Your task to perform on an android device: Open Maps and search for coffee Image 0: 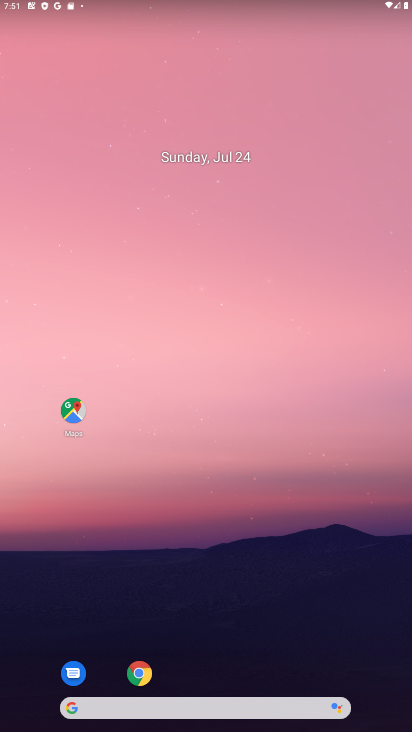
Step 0: click (73, 409)
Your task to perform on an android device: Open Maps and search for coffee Image 1: 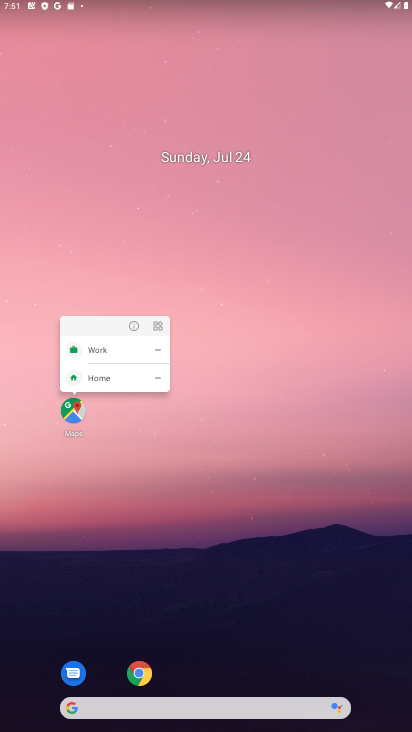
Step 1: click (65, 419)
Your task to perform on an android device: Open Maps and search for coffee Image 2: 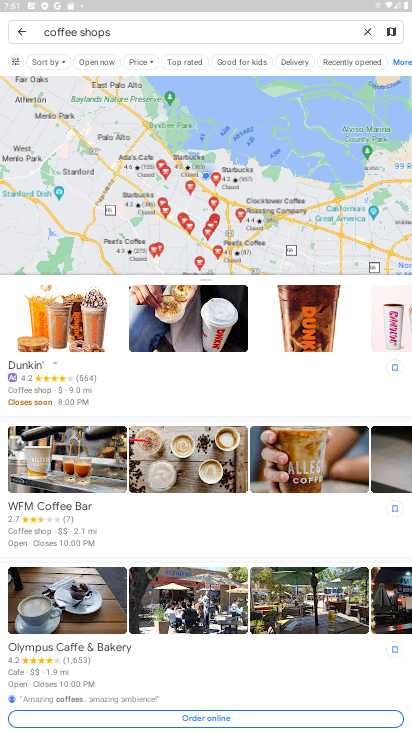
Step 2: click (15, 32)
Your task to perform on an android device: Open Maps and search for coffee Image 3: 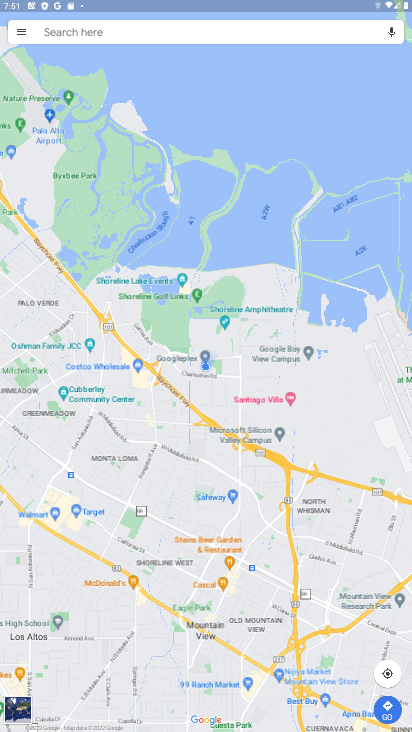
Step 3: click (92, 34)
Your task to perform on an android device: Open Maps and search for coffee Image 4: 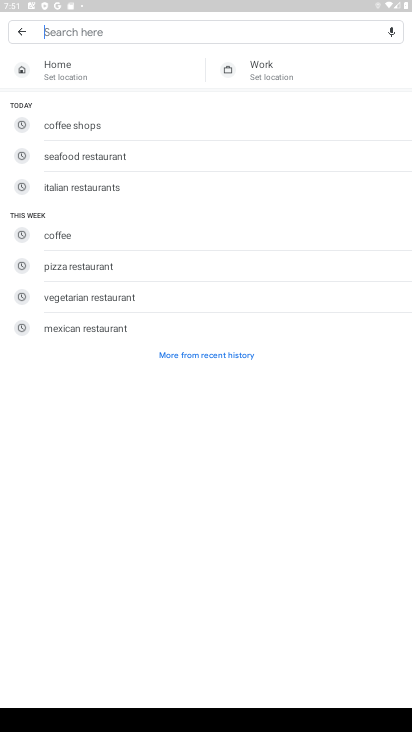
Step 4: click (70, 238)
Your task to perform on an android device: Open Maps and search for coffee Image 5: 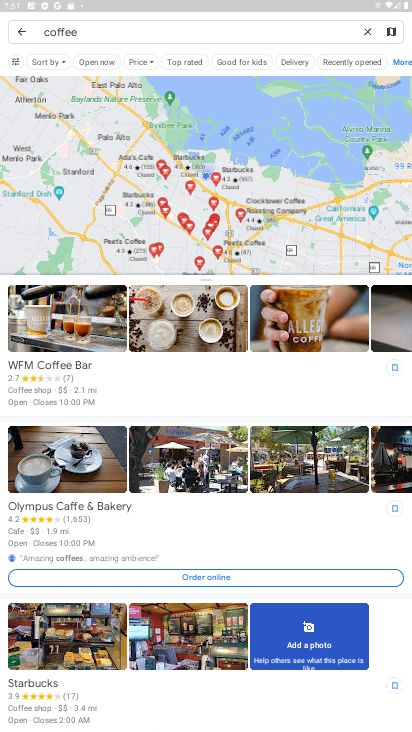
Step 5: task complete